Your task to perform on an android device: turn vacation reply on in the gmail app Image 0: 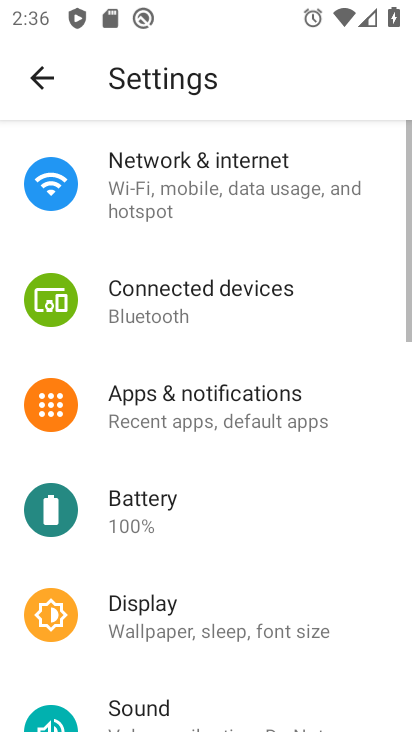
Step 0: press home button
Your task to perform on an android device: turn vacation reply on in the gmail app Image 1: 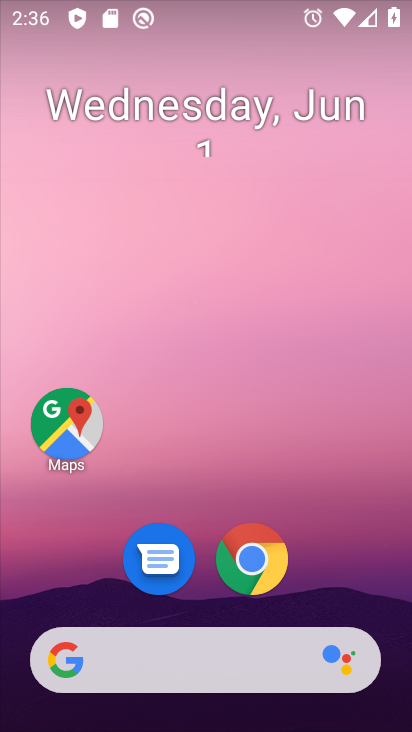
Step 1: drag from (201, 602) to (166, 50)
Your task to perform on an android device: turn vacation reply on in the gmail app Image 2: 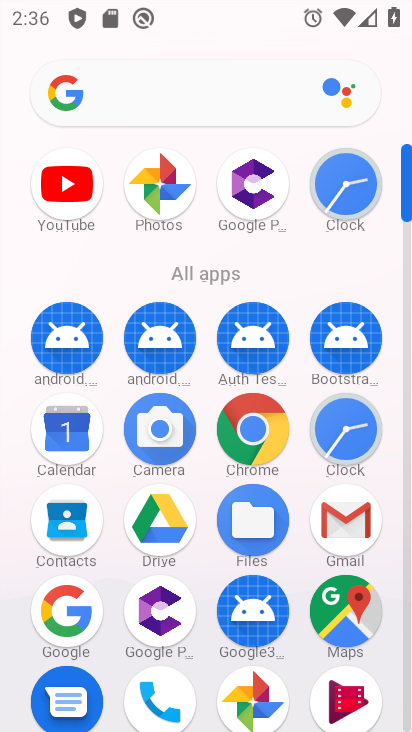
Step 2: click (340, 524)
Your task to perform on an android device: turn vacation reply on in the gmail app Image 3: 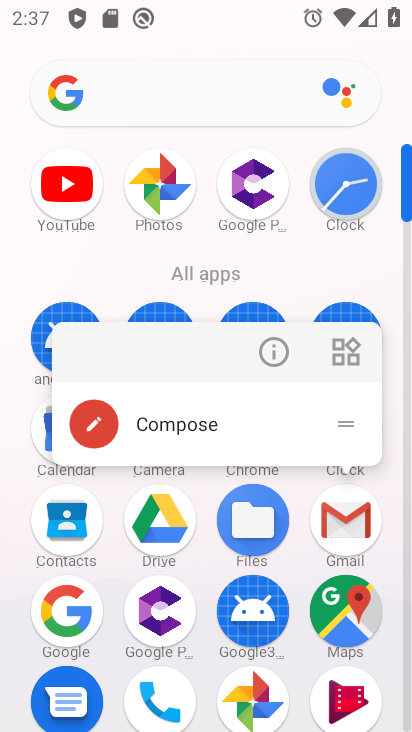
Step 3: click (340, 524)
Your task to perform on an android device: turn vacation reply on in the gmail app Image 4: 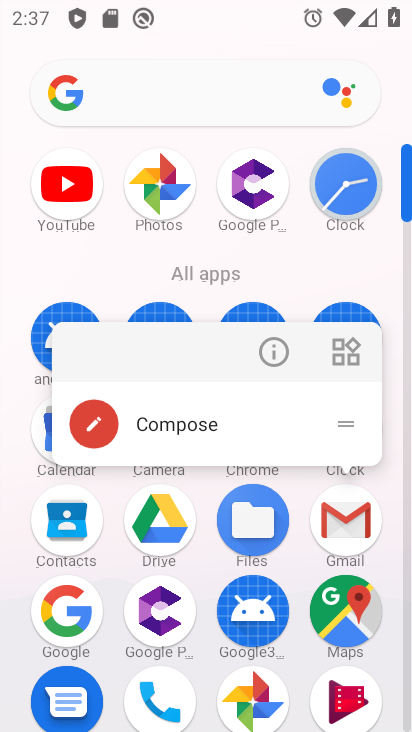
Step 4: click (338, 523)
Your task to perform on an android device: turn vacation reply on in the gmail app Image 5: 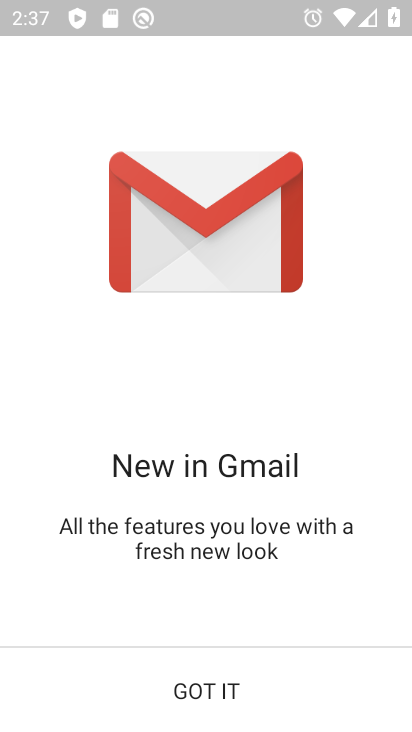
Step 5: click (173, 691)
Your task to perform on an android device: turn vacation reply on in the gmail app Image 6: 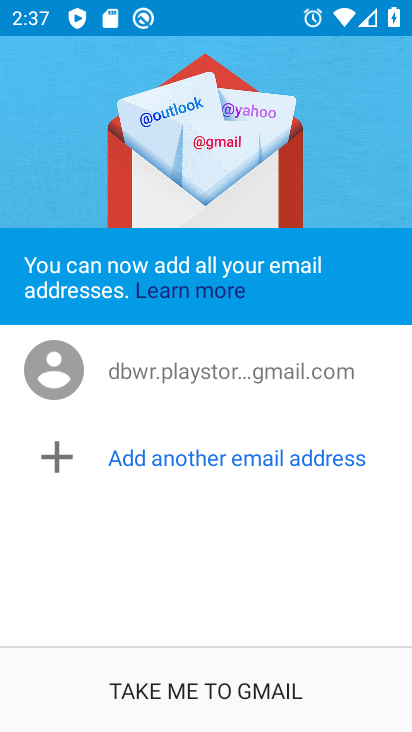
Step 6: click (164, 686)
Your task to perform on an android device: turn vacation reply on in the gmail app Image 7: 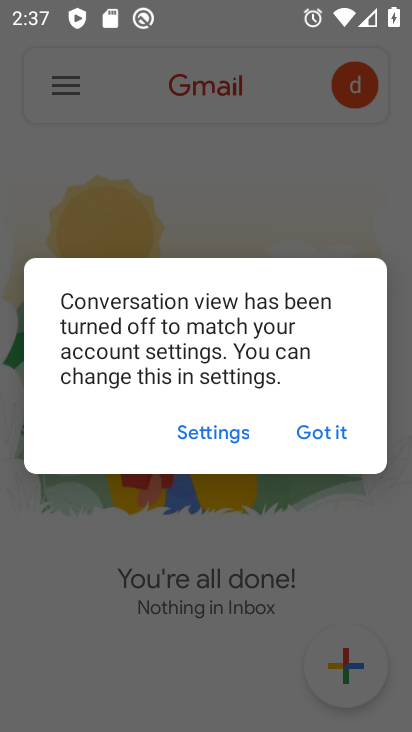
Step 7: click (322, 431)
Your task to perform on an android device: turn vacation reply on in the gmail app Image 8: 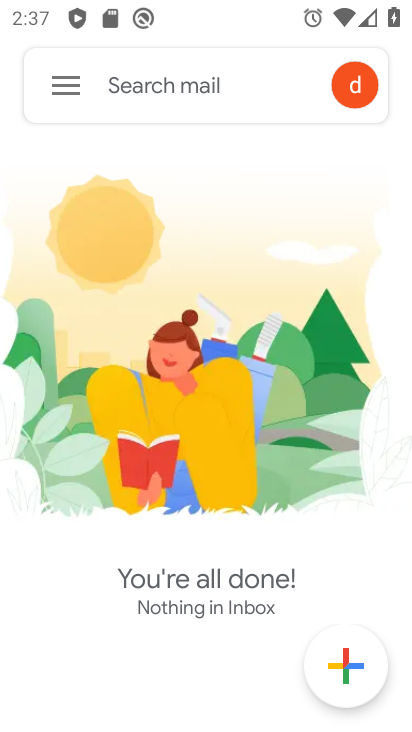
Step 8: click (71, 88)
Your task to perform on an android device: turn vacation reply on in the gmail app Image 9: 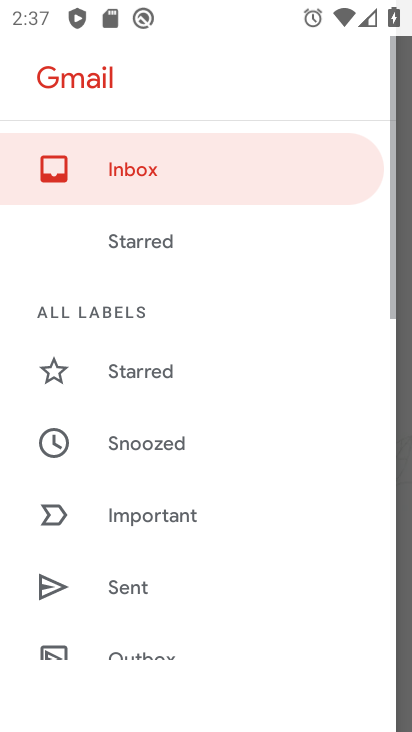
Step 9: drag from (166, 638) to (148, 191)
Your task to perform on an android device: turn vacation reply on in the gmail app Image 10: 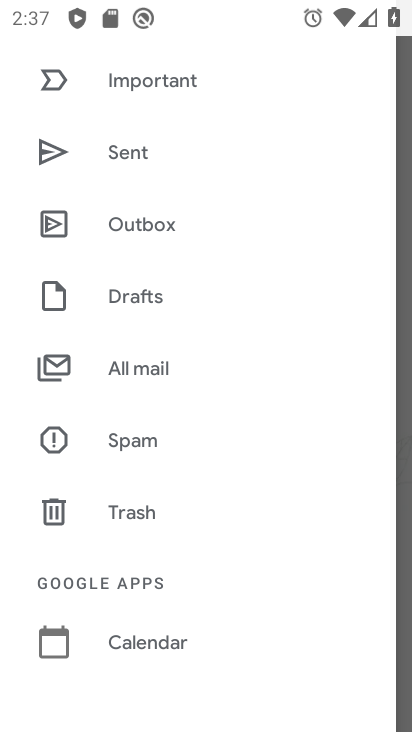
Step 10: drag from (153, 597) to (131, 274)
Your task to perform on an android device: turn vacation reply on in the gmail app Image 11: 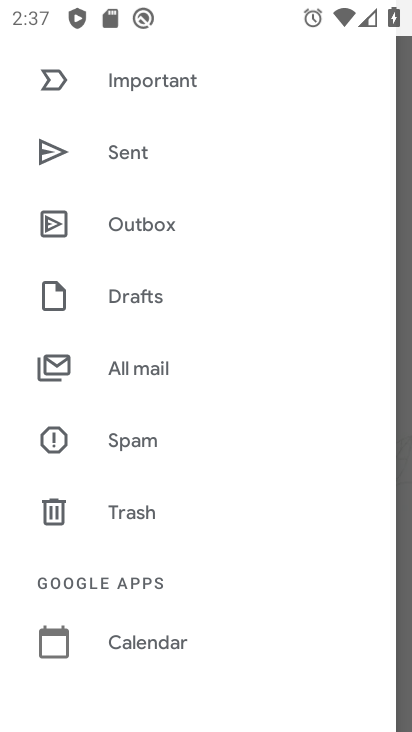
Step 11: drag from (182, 600) to (175, 231)
Your task to perform on an android device: turn vacation reply on in the gmail app Image 12: 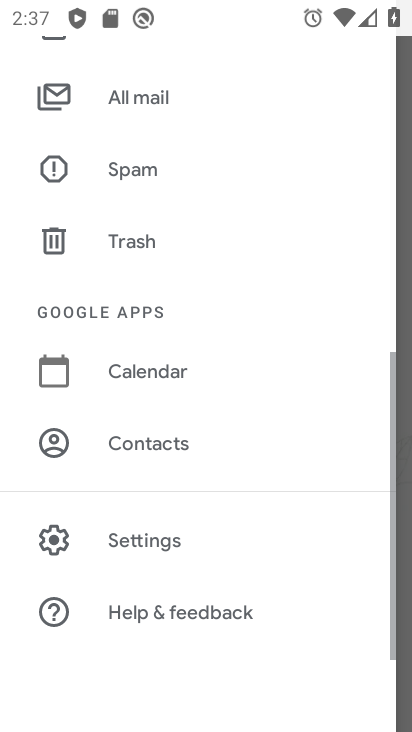
Step 12: click (127, 542)
Your task to perform on an android device: turn vacation reply on in the gmail app Image 13: 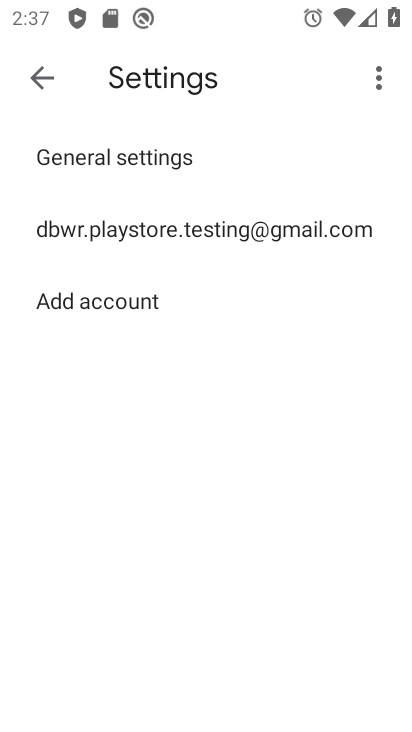
Step 13: click (277, 223)
Your task to perform on an android device: turn vacation reply on in the gmail app Image 14: 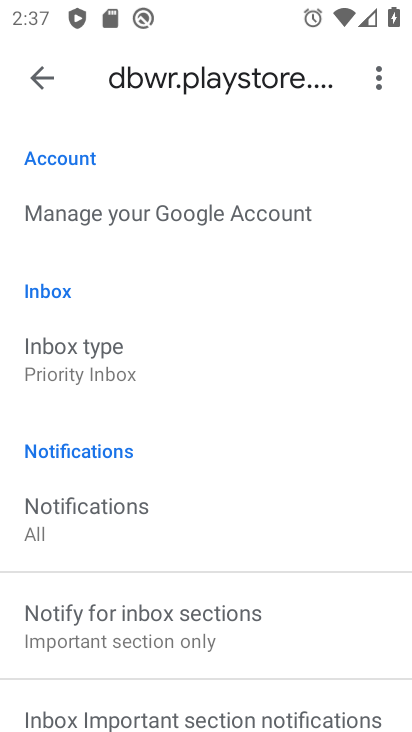
Step 14: drag from (256, 699) to (227, 129)
Your task to perform on an android device: turn vacation reply on in the gmail app Image 15: 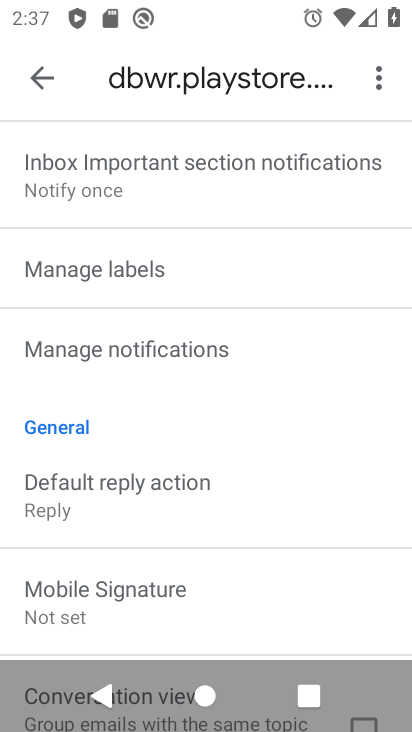
Step 15: drag from (210, 614) to (211, 155)
Your task to perform on an android device: turn vacation reply on in the gmail app Image 16: 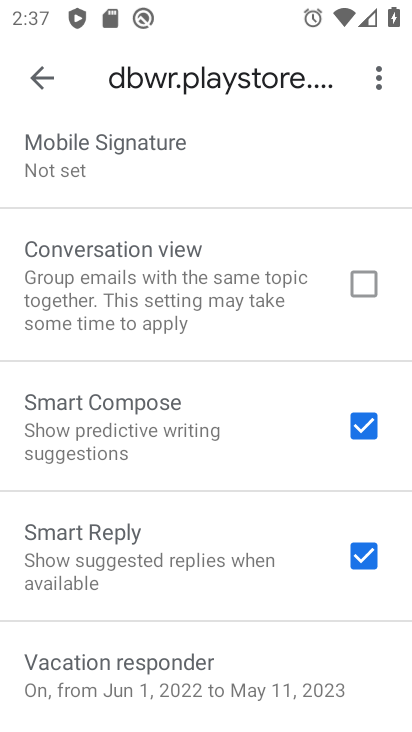
Step 16: click (187, 654)
Your task to perform on an android device: turn vacation reply on in the gmail app Image 17: 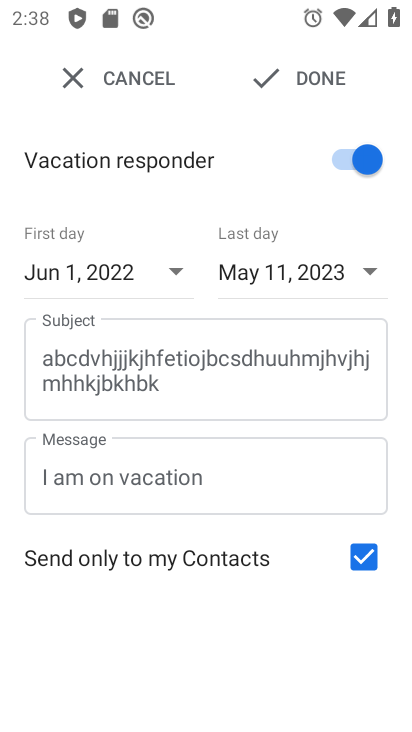
Step 17: click (302, 84)
Your task to perform on an android device: turn vacation reply on in the gmail app Image 18: 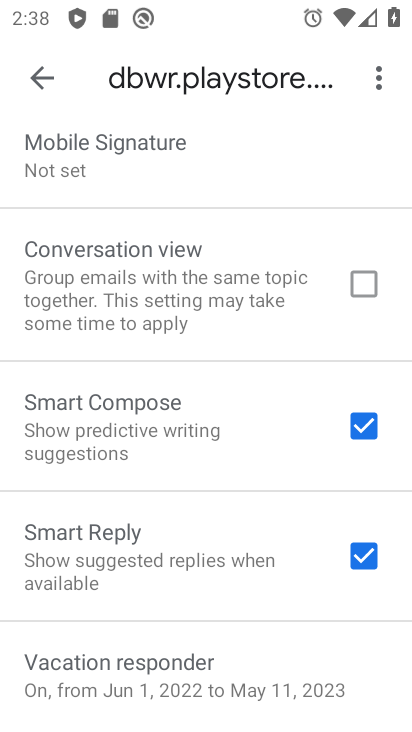
Step 18: task complete